Your task to perform on an android device: Is it going to rain this weekend? Image 0: 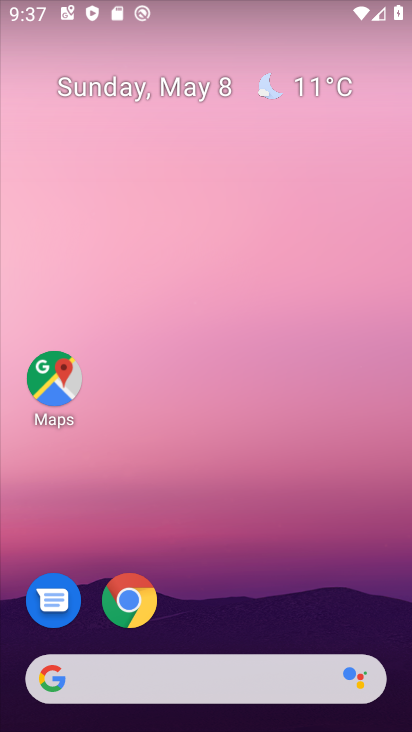
Step 0: drag from (231, 541) to (179, 0)
Your task to perform on an android device: Is it going to rain this weekend? Image 1: 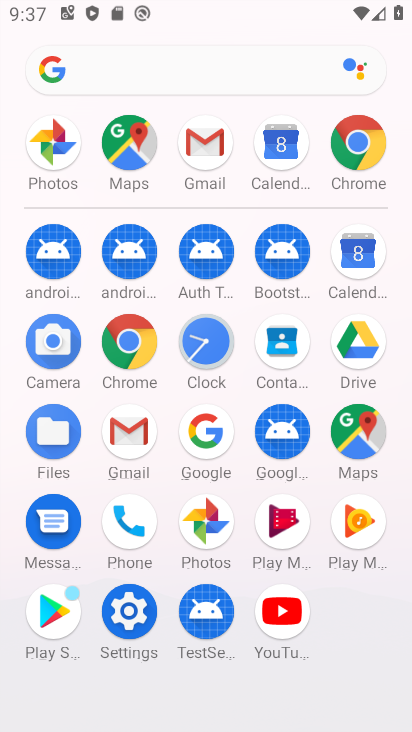
Step 1: drag from (1, 580) to (14, 267)
Your task to perform on an android device: Is it going to rain this weekend? Image 2: 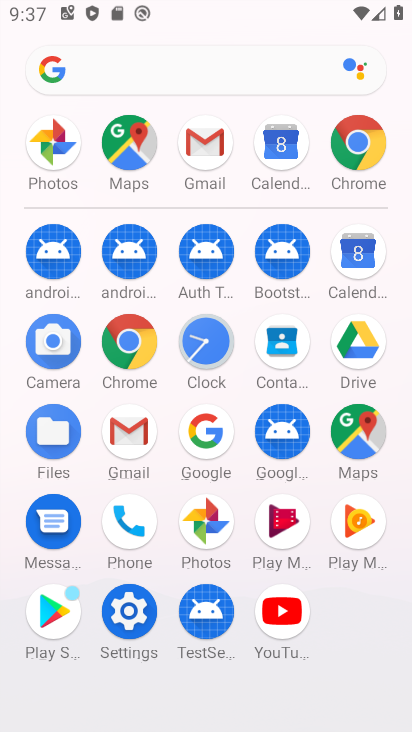
Step 2: click (127, 343)
Your task to perform on an android device: Is it going to rain this weekend? Image 3: 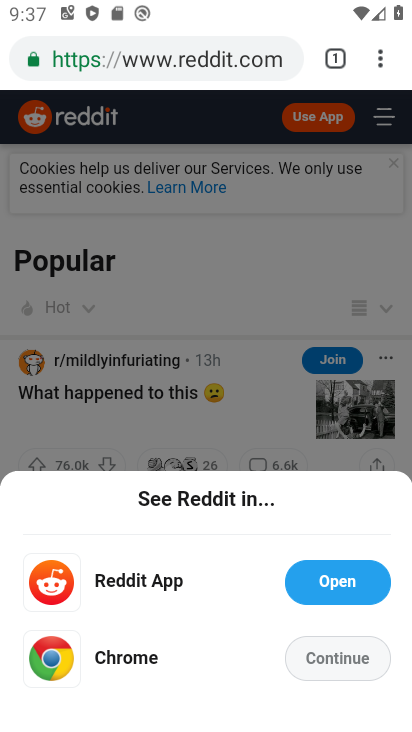
Step 3: click (235, 52)
Your task to perform on an android device: Is it going to rain this weekend? Image 4: 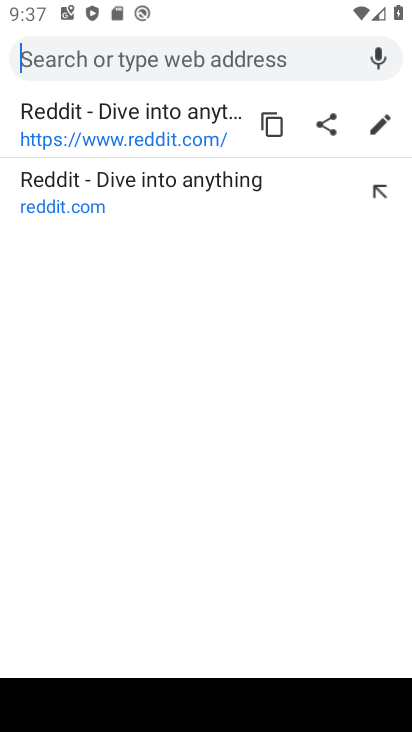
Step 4: type "Is it going to rain this weekend?"
Your task to perform on an android device: Is it going to rain this weekend? Image 5: 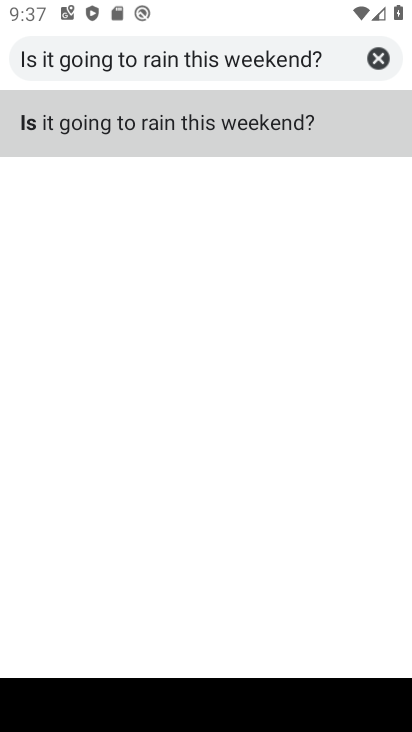
Step 5: click (177, 63)
Your task to perform on an android device: Is it going to rain this weekend? Image 6: 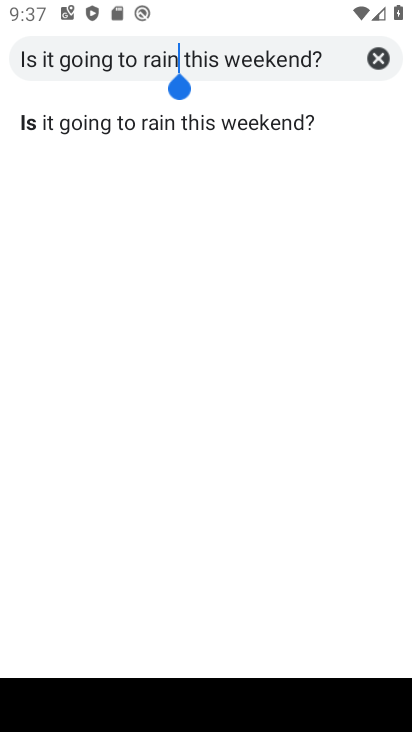
Step 6: click (182, 115)
Your task to perform on an android device: Is it going to rain this weekend? Image 7: 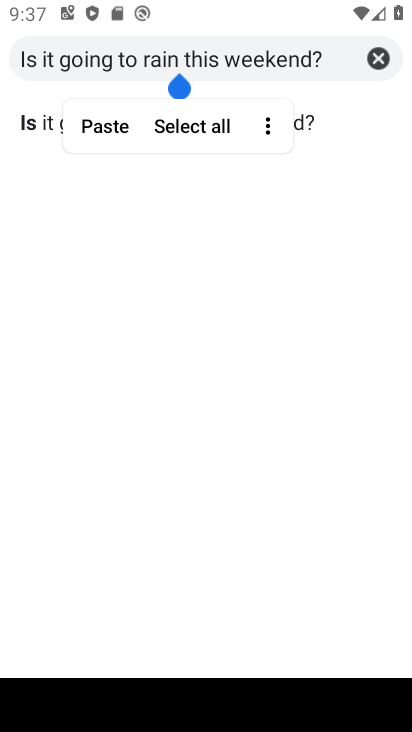
Step 7: click (303, 115)
Your task to perform on an android device: Is it going to rain this weekend? Image 8: 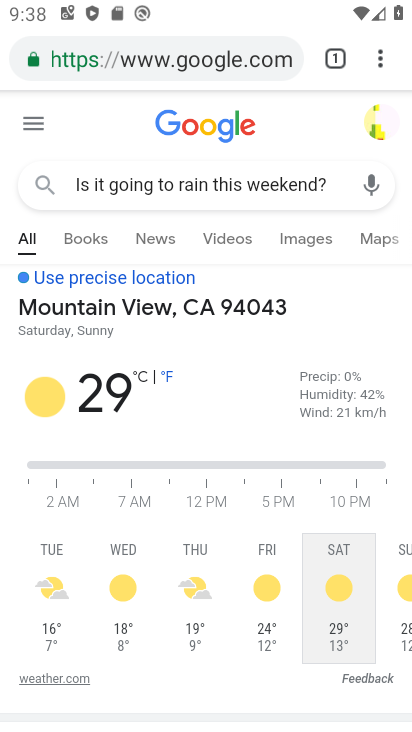
Step 8: task complete